Your task to perform on an android device: change your default location settings in chrome Image 0: 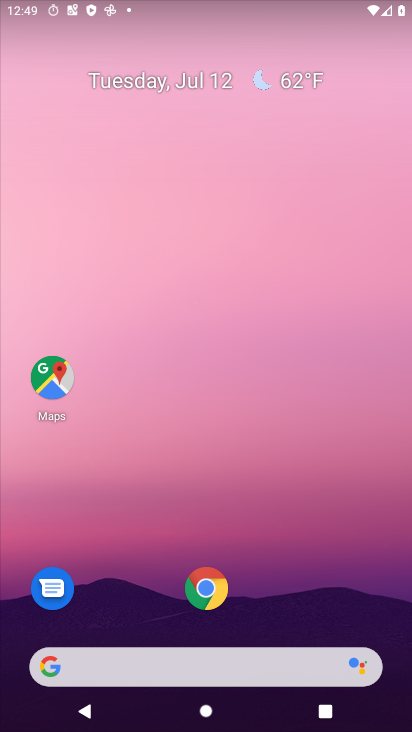
Step 0: drag from (165, 597) to (259, 160)
Your task to perform on an android device: change your default location settings in chrome Image 1: 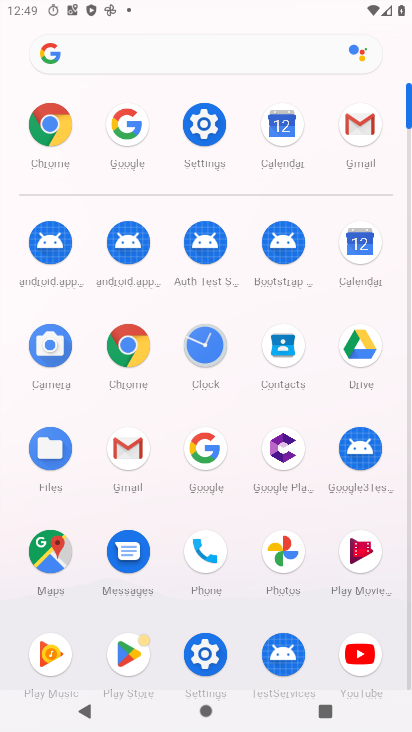
Step 1: click (208, 144)
Your task to perform on an android device: change your default location settings in chrome Image 2: 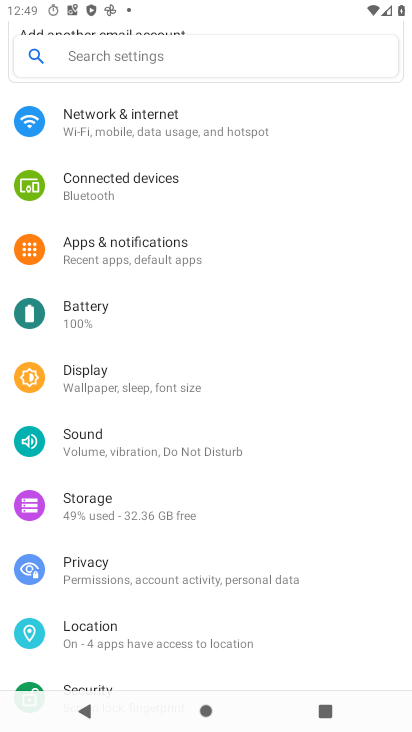
Step 2: click (94, 619)
Your task to perform on an android device: change your default location settings in chrome Image 3: 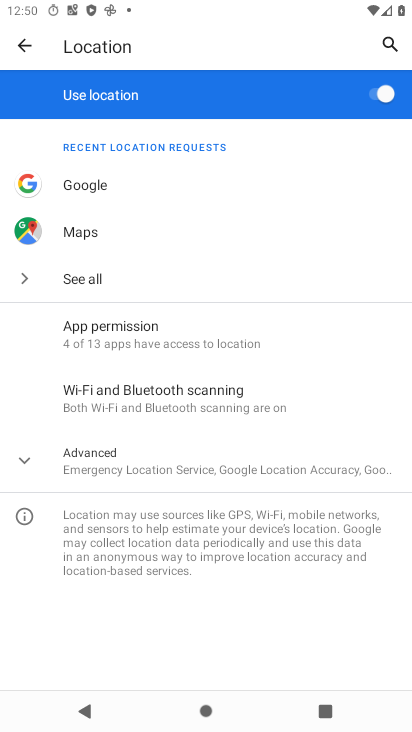
Step 3: click (376, 92)
Your task to perform on an android device: change your default location settings in chrome Image 4: 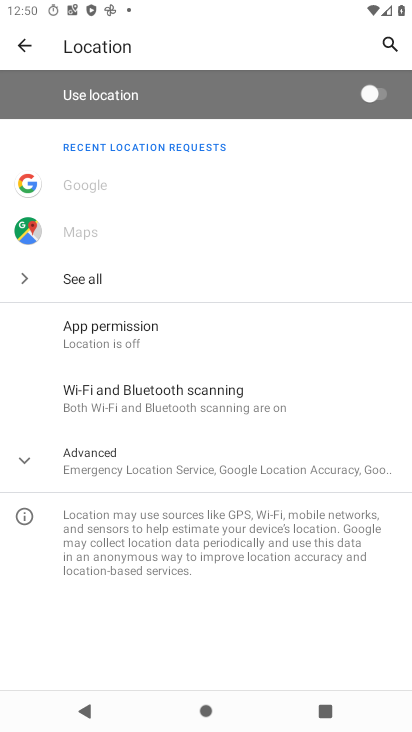
Step 4: task complete